Your task to perform on an android device: empty trash in google photos Image 0: 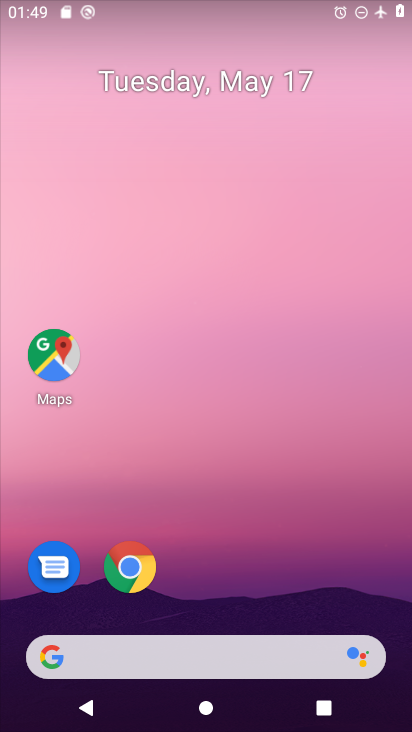
Step 0: drag from (258, 541) to (166, 106)
Your task to perform on an android device: empty trash in google photos Image 1: 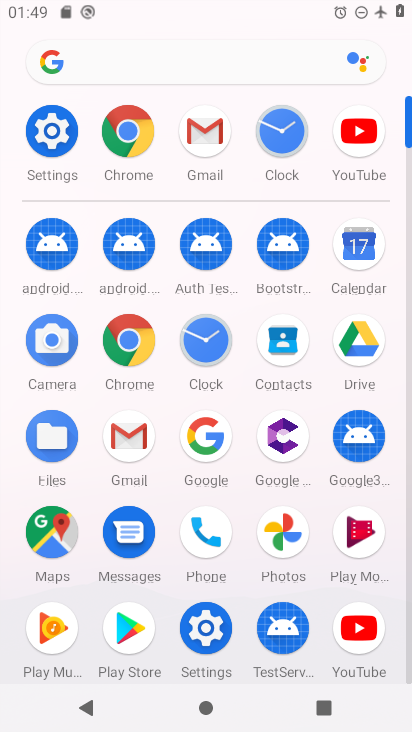
Step 1: click (280, 530)
Your task to perform on an android device: empty trash in google photos Image 2: 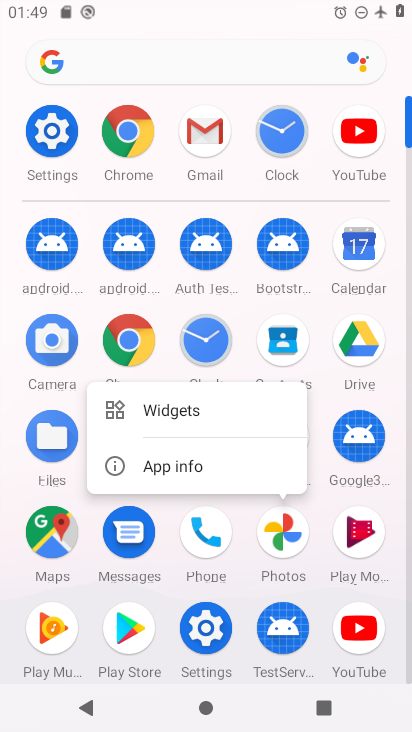
Step 2: click (283, 527)
Your task to perform on an android device: empty trash in google photos Image 3: 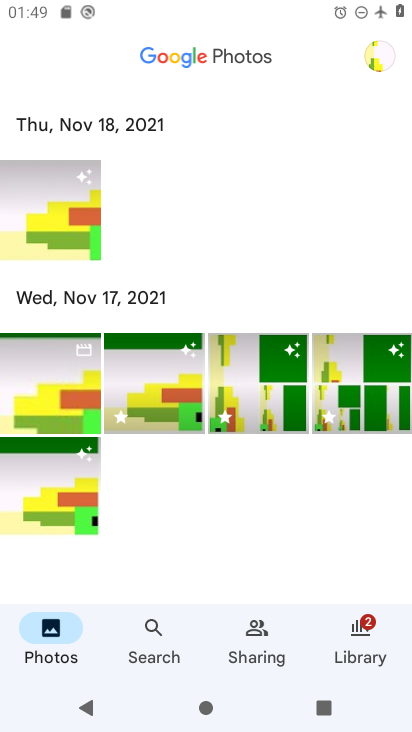
Step 3: click (362, 628)
Your task to perform on an android device: empty trash in google photos Image 4: 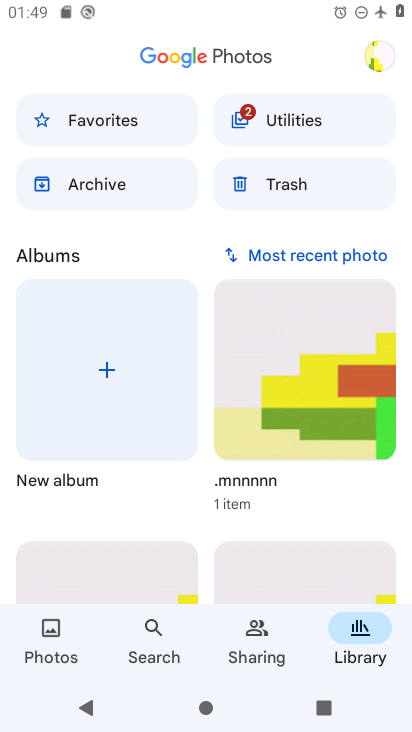
Step 4: click (267, 182)
Your task to perform on an android device: empty trash in google photos Image 5: 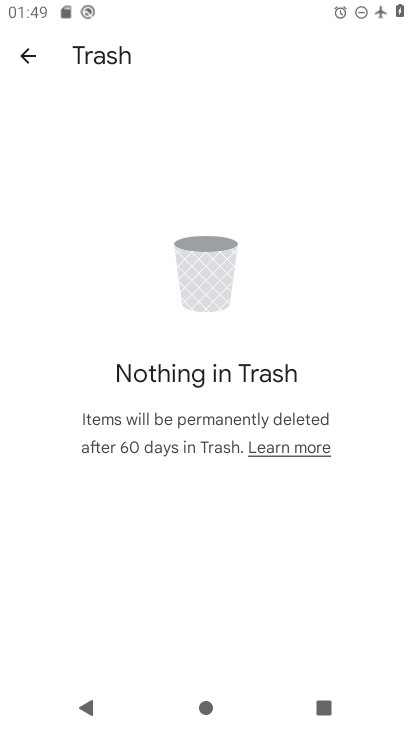
Step 5: task complete